Your task to perform on an android device: uninstall "Fetch Rewards" Image 0: 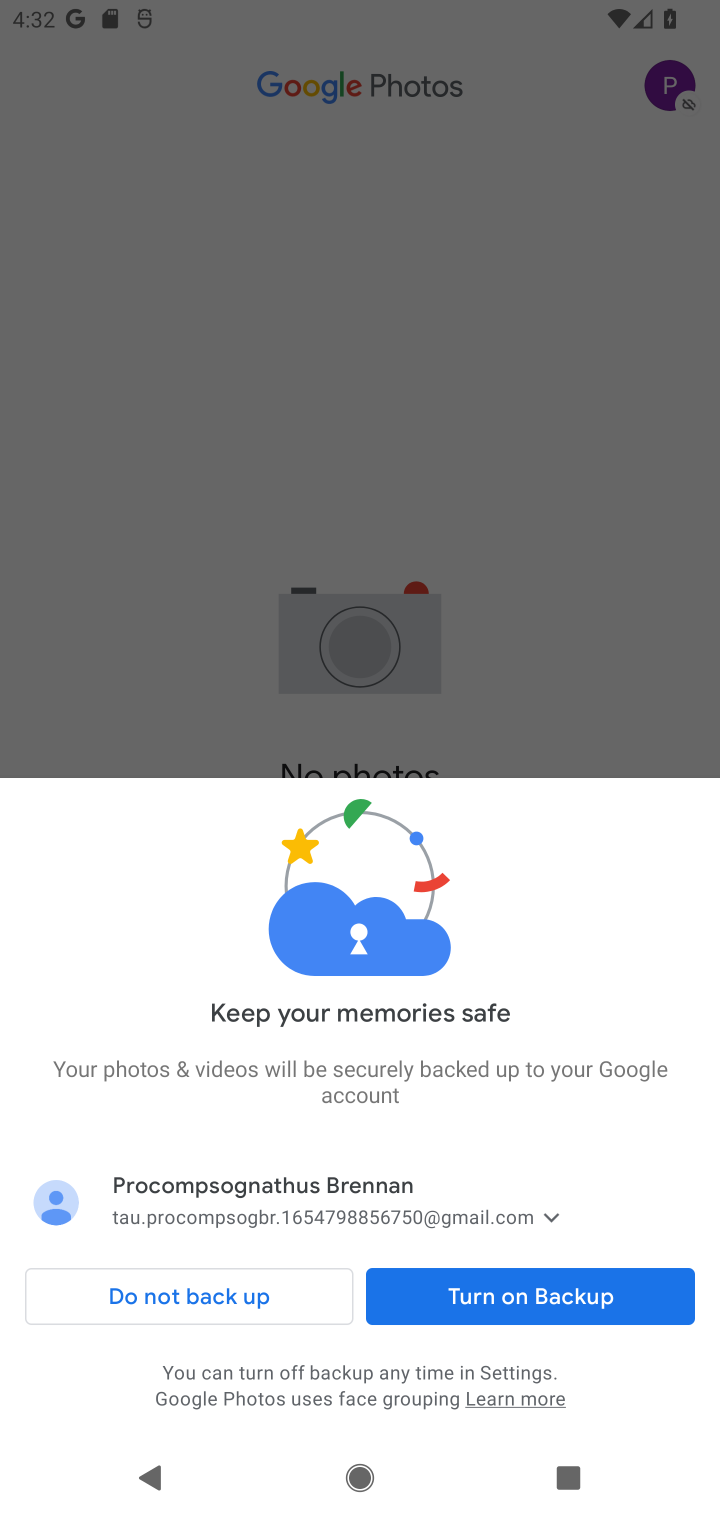
Step 0: press home button
Your task to perform on an android device: uninstall "Fetch Rewards" Image 1: 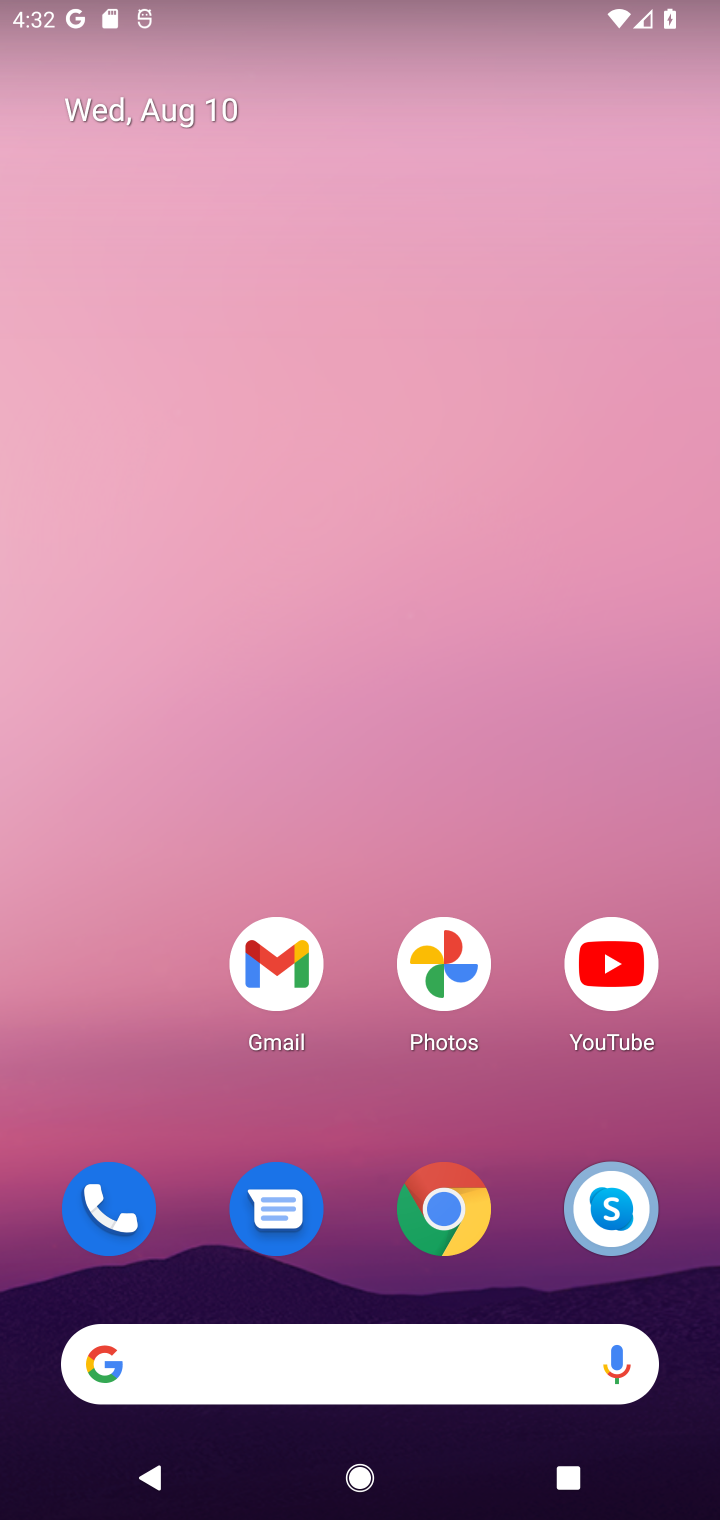
Step 1: drag from (378, 1306) to (387, 261)
Your task to perform on an android device: uninstall "Fetch Rewards" Image 2: 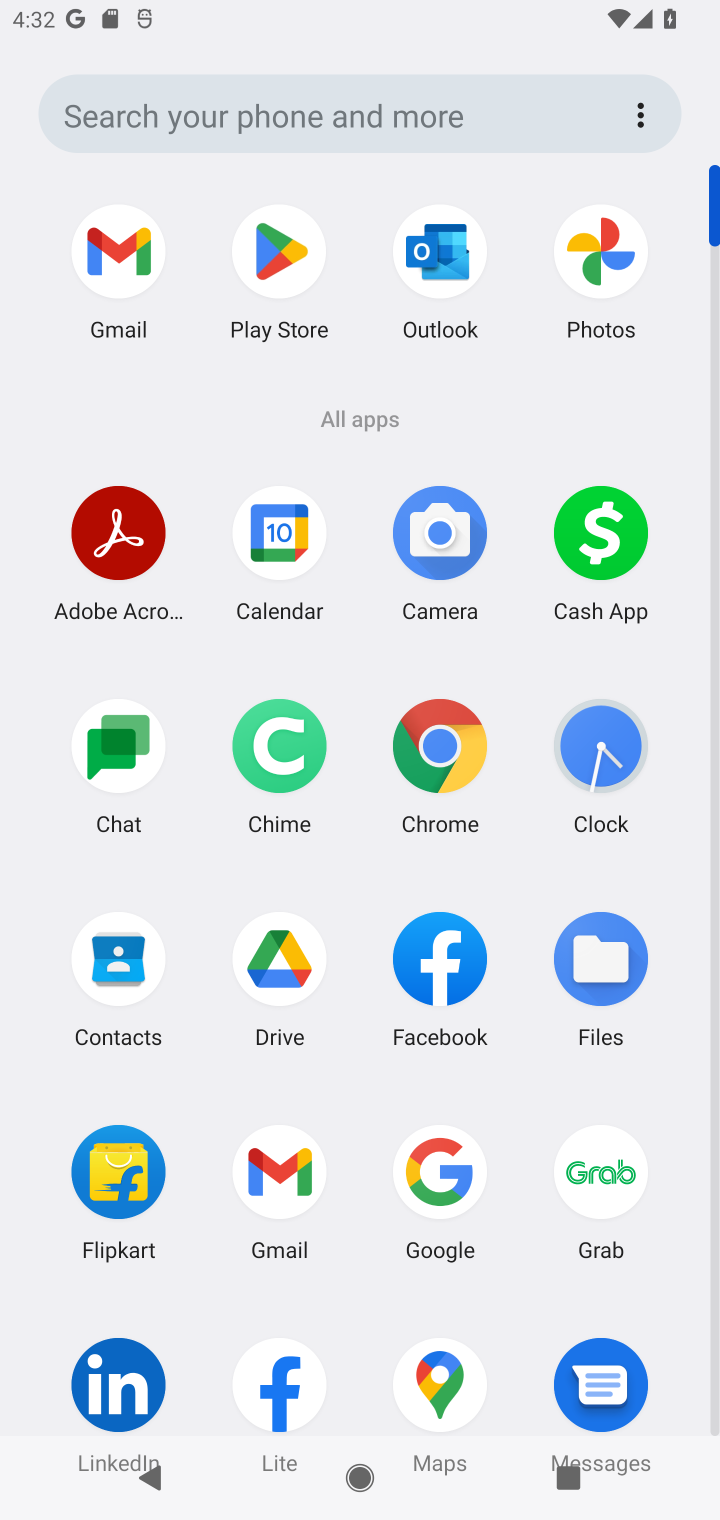
Step 2: click (310, 302)
Your task to perform on an android device: uninstall "Fetch Rewards" Image 3: 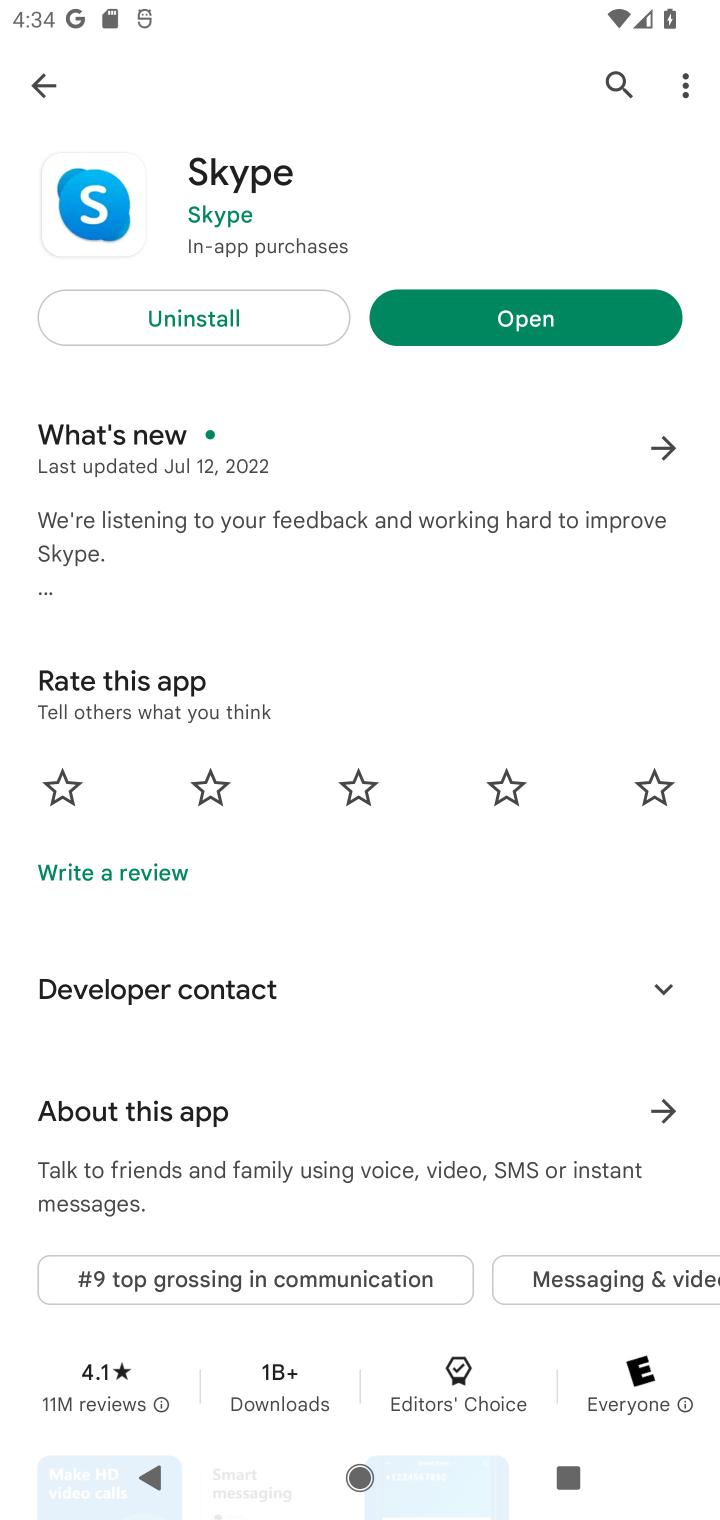
Step 3: click (612, 70)
Your task to perform on an android device: uninstall "Fetch Rewards" Image 4: 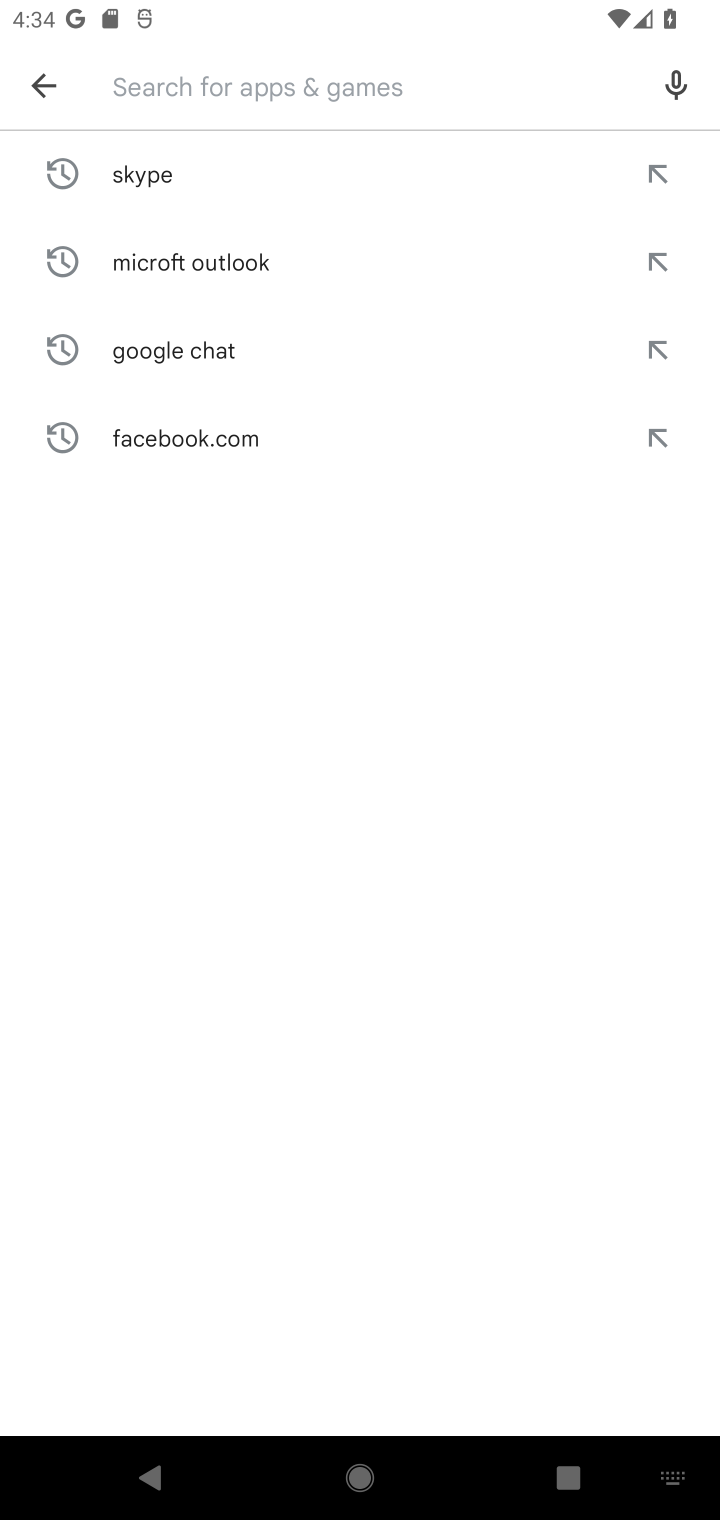
Step 4: type "fetch"
Your task to perform on an android device: uninstall "Fetch Rewards" Image 5: 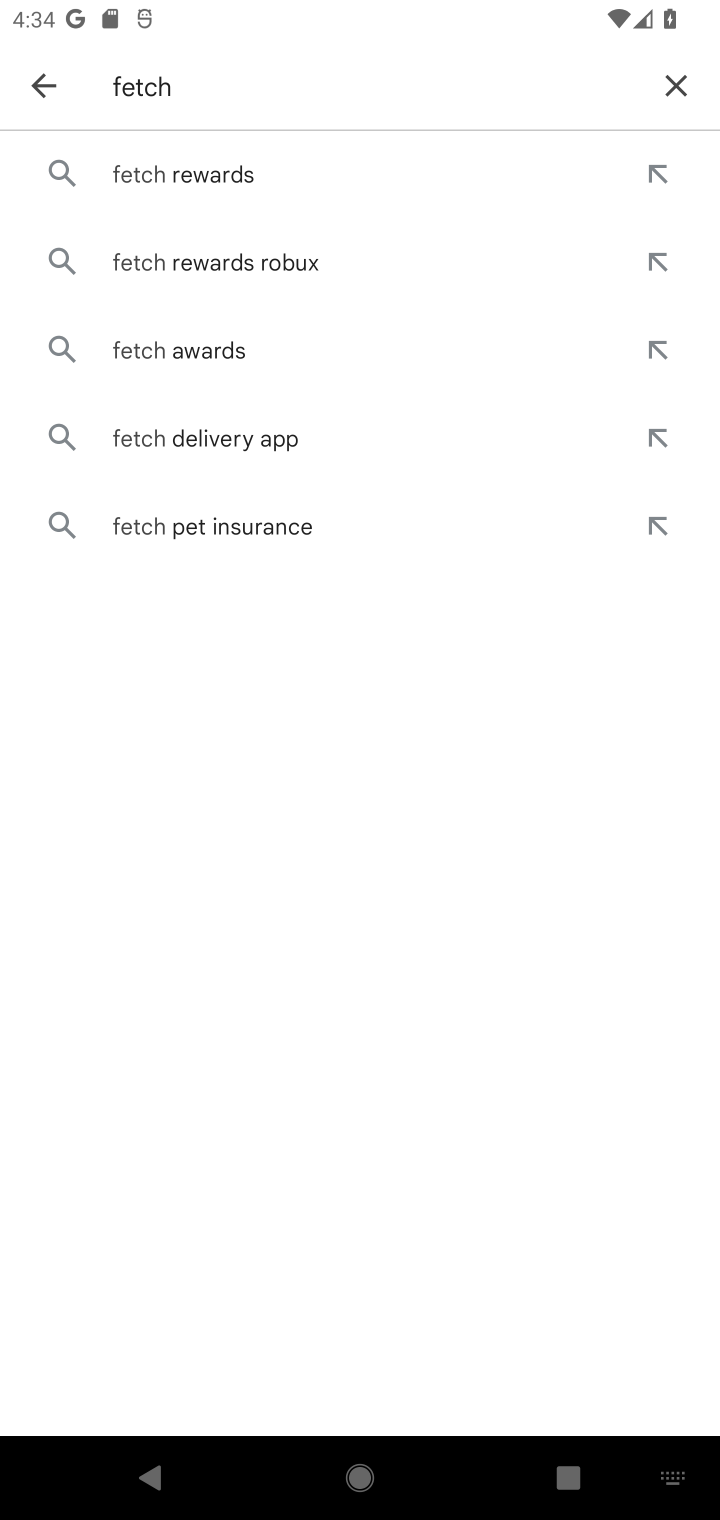
Step 5: click (399, 178)
Your task to perform on an android device: uninstall "Fetch Rewards" Image 6: 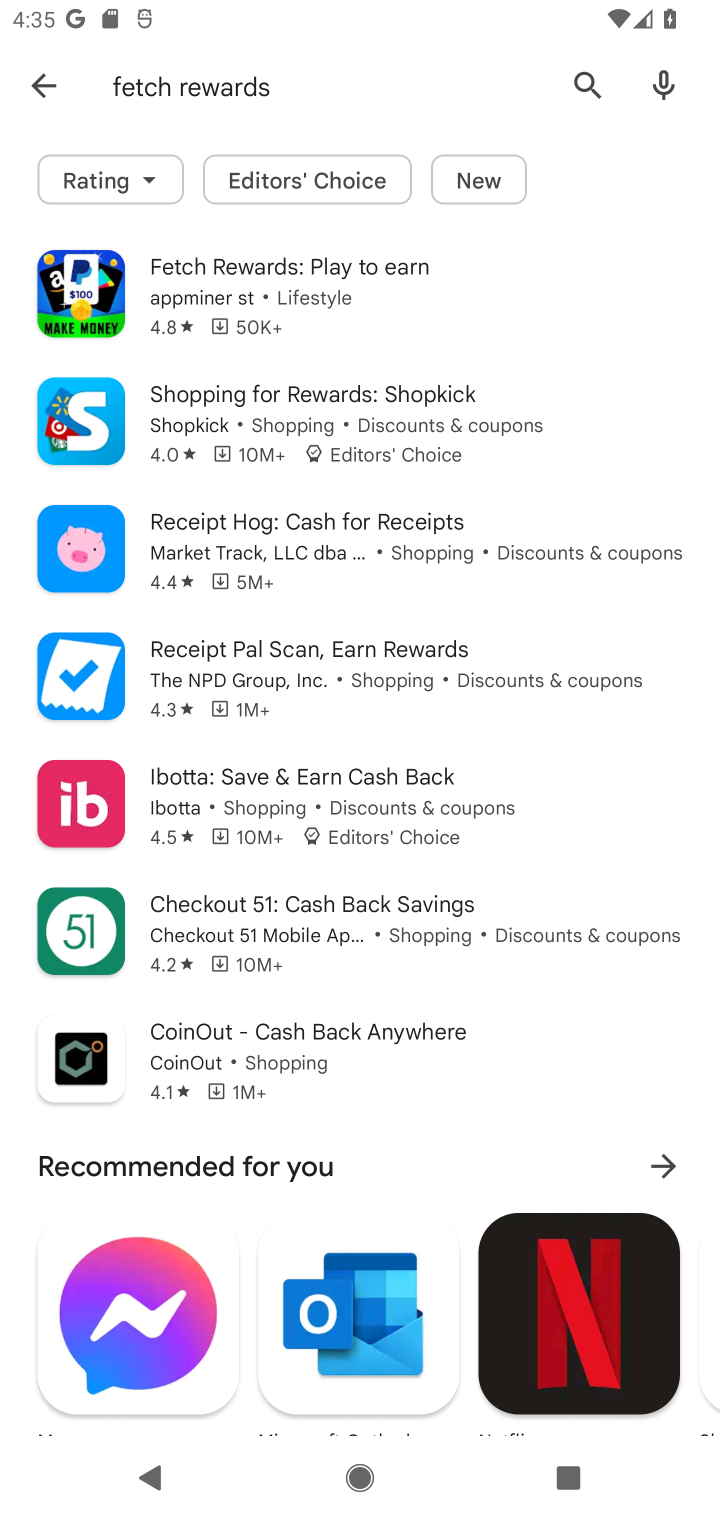
Step 6: click (395, 288)
Your task to perform on an android device: uninstall "Fetch Rewards" Image 7: 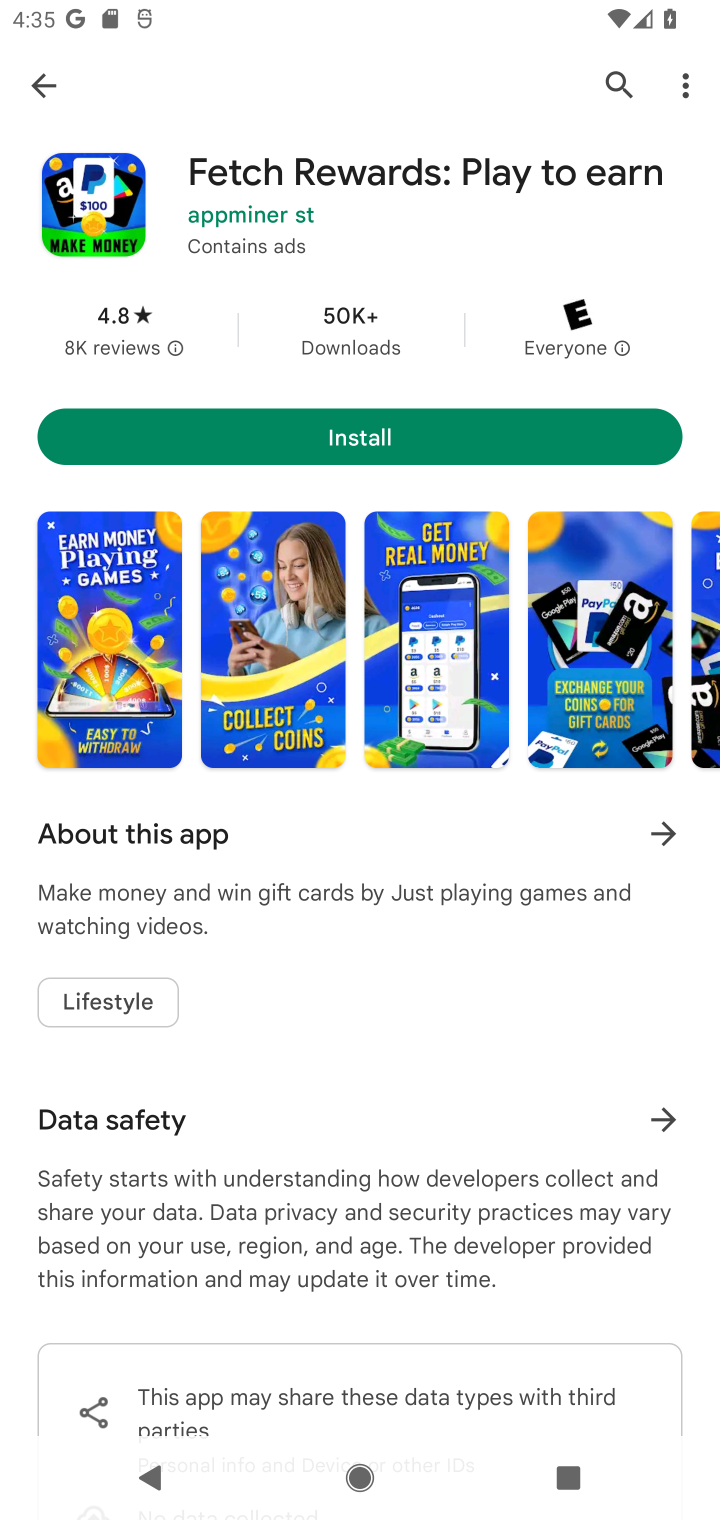
Step 7: click (422, 414)
Your task to perform on an android device: uninstall "Fetch Rewards" Image 8: 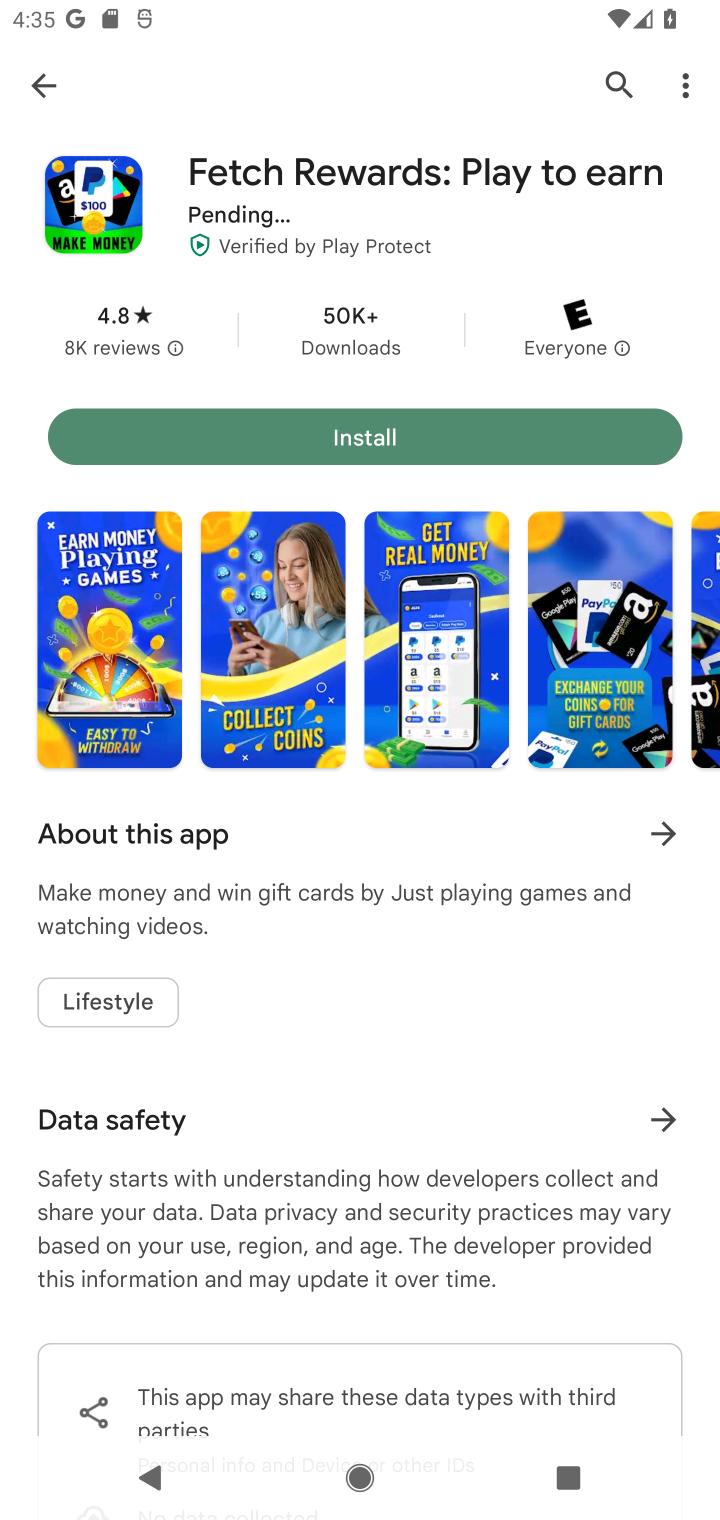
Step 8: task complete